Your task to perform on an android device: open app "Messenger Lite" Image 0: 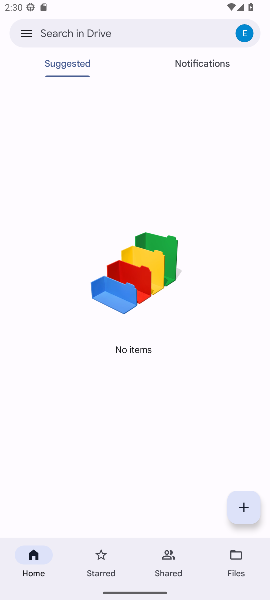
Step 0: press home button
Your task to perform on an android device: open app "Messenger Lite" Image 1: 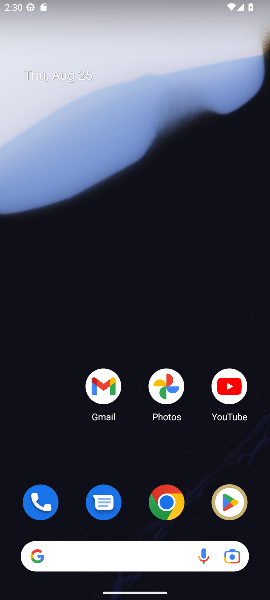
Step 1: drag from (134, 524) to (138, 38)
Your task to perform on an android device: open app "Messenger Lite" Image 2: 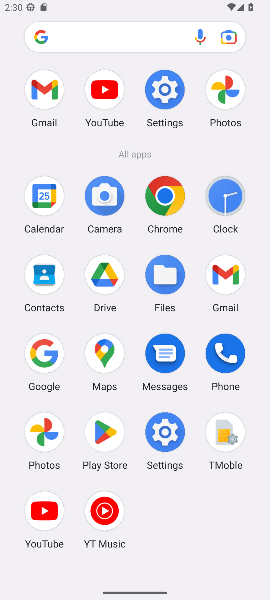
Step 2: click (104, 453)
Your task to perform on an android device: open app "Messenger Lite" Image 3: 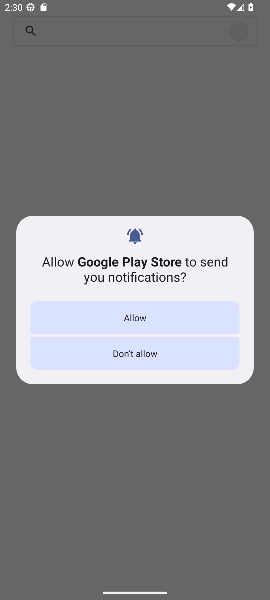
Step 3: click (129, 312)
Your task to perform on an android device: open app "Messenger Lite" Image 4: 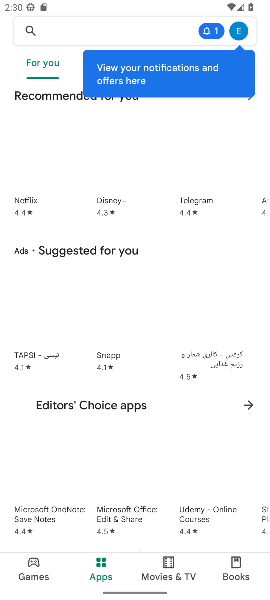
Step 4: click (171, 26)
Your task to perform on an android device: open app "Messenger Lite" Image 5: 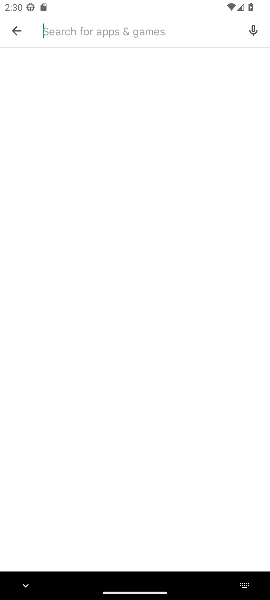
Step 5: type "messenger lite"
Your task to perform on an android device: open app "Messenger Lite" Image 6: 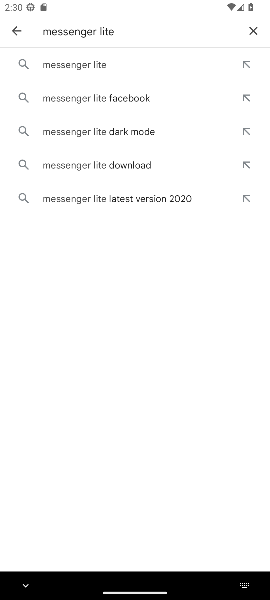
Step 6: click (128, 74)
Your task to perform on an android device: open app "Messenger Lite" Image 7: 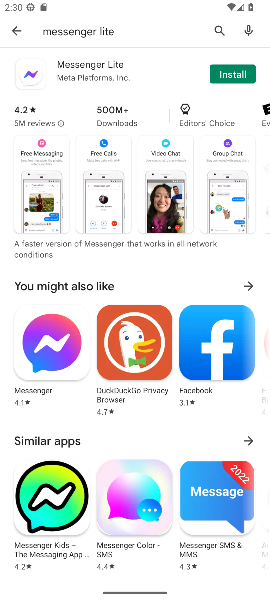
Step 7: click (221, 75)
Your task to perform on an android device: open app "Messenger Lite" Image 8: 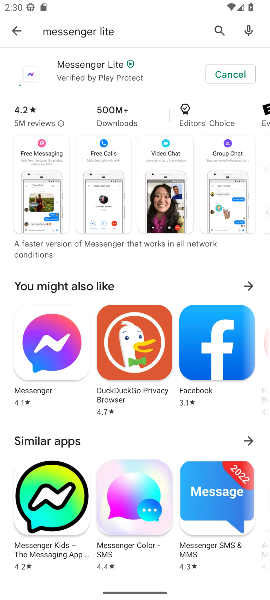
Step 8: task complete